Your task to perform on an android device: find photos in the google photos app Image 0: 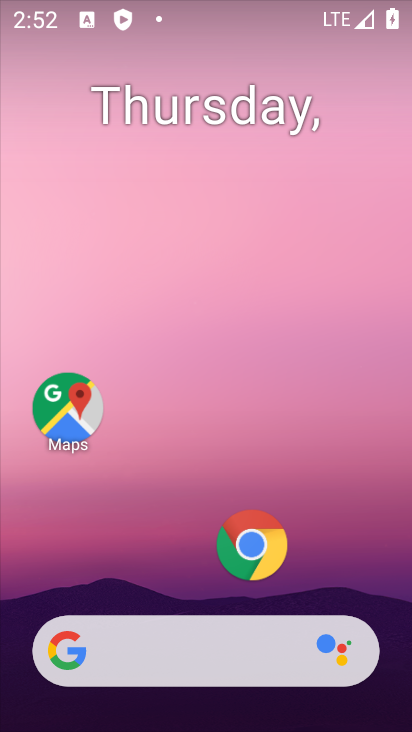
Step 0: drag from (223, 431) to (236, 9)
Your task to perform on an android device: find photos in the google photos app Image 1: 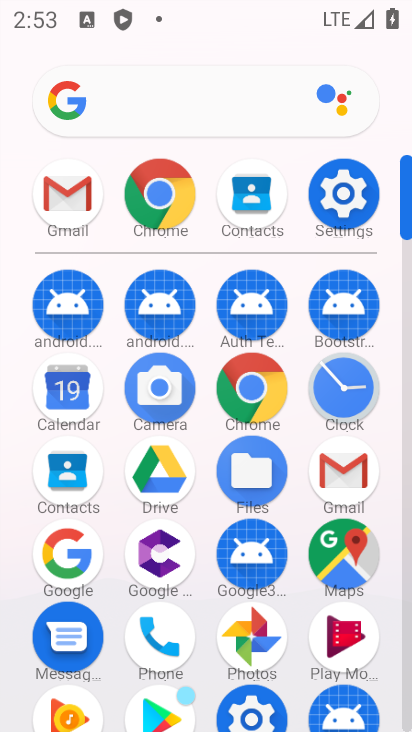
Step 1: click (266, 638)
Your task to perform on an android device: find photos in the google photos app Image 2: 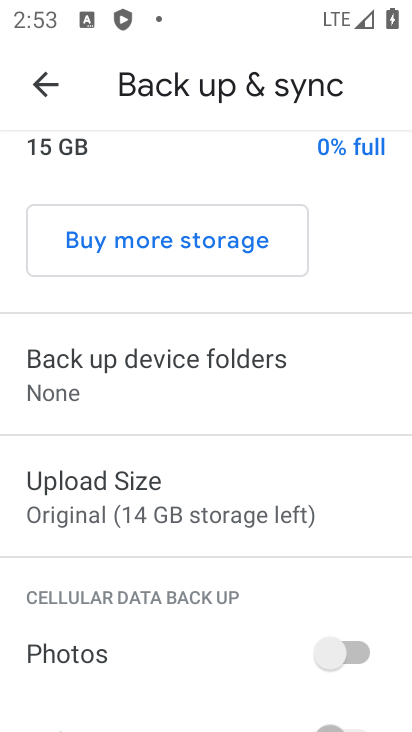
Step 2: task complete